Your task to perform on an android device: visit the assistant section in the google photos Image 0: 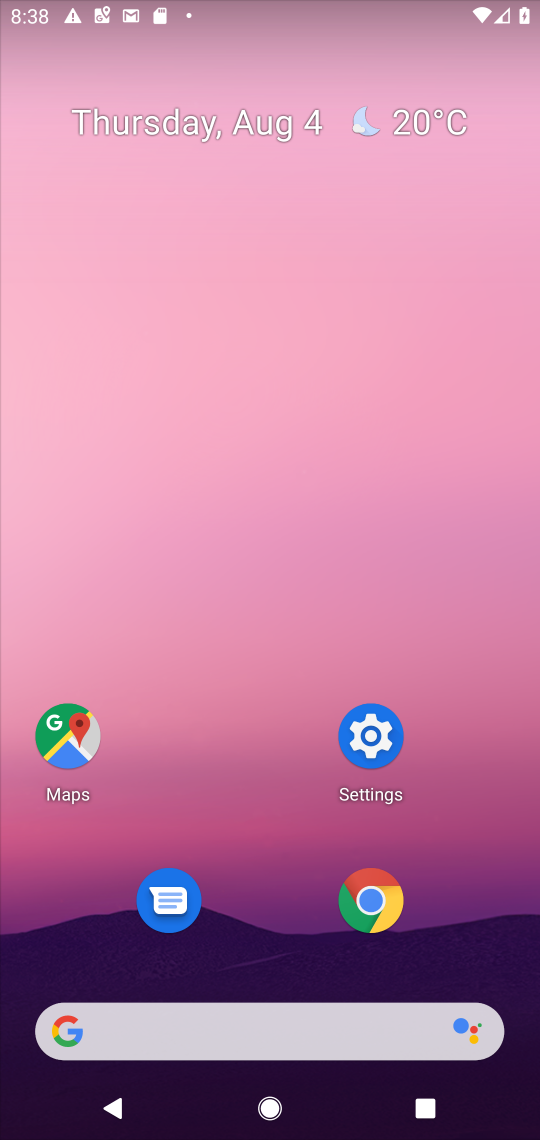
Step 0: press home button
Your task to perform on an android device: visit the assistant section in the google photos Image 1: 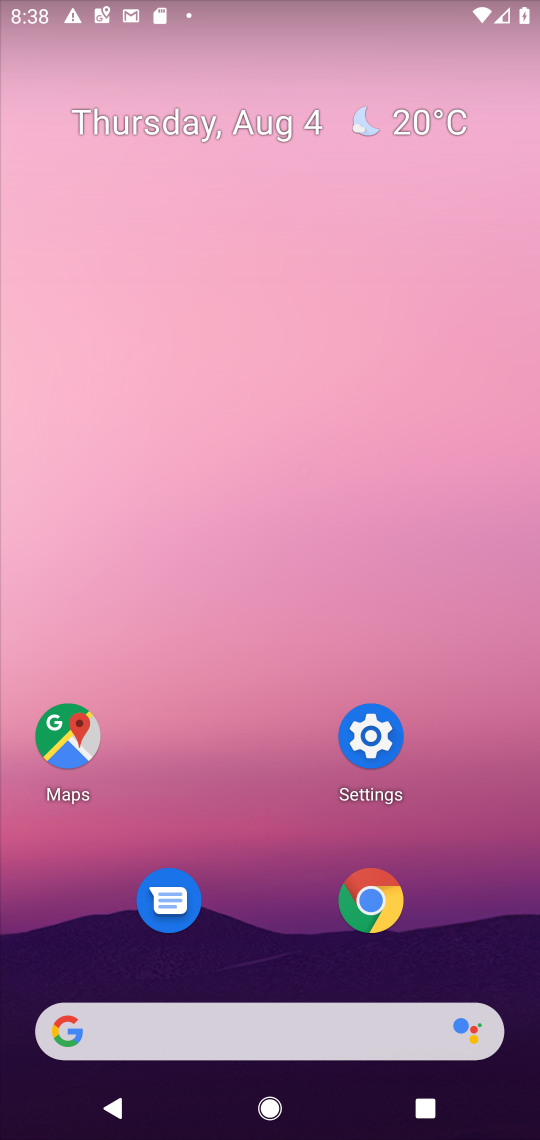
Step 1: drag from (265, 1015) to (399, 306)
Your task to perform on an android device: visit the assistant section in the google photos Image 2: 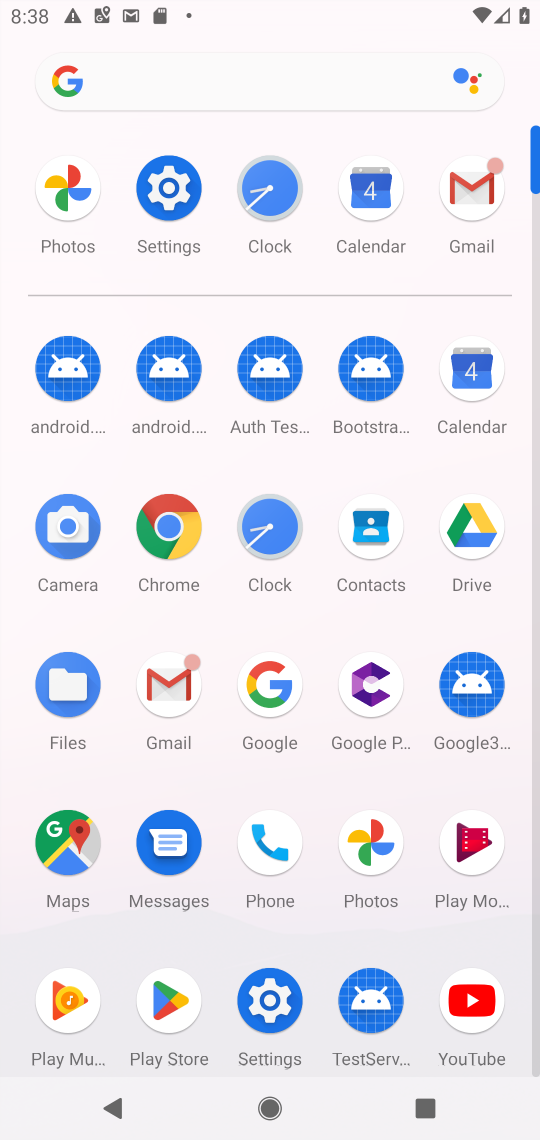
Step 2: click (367, 839)
Your task to perform on an android device: visit the assistant section in the google photos Image 3: 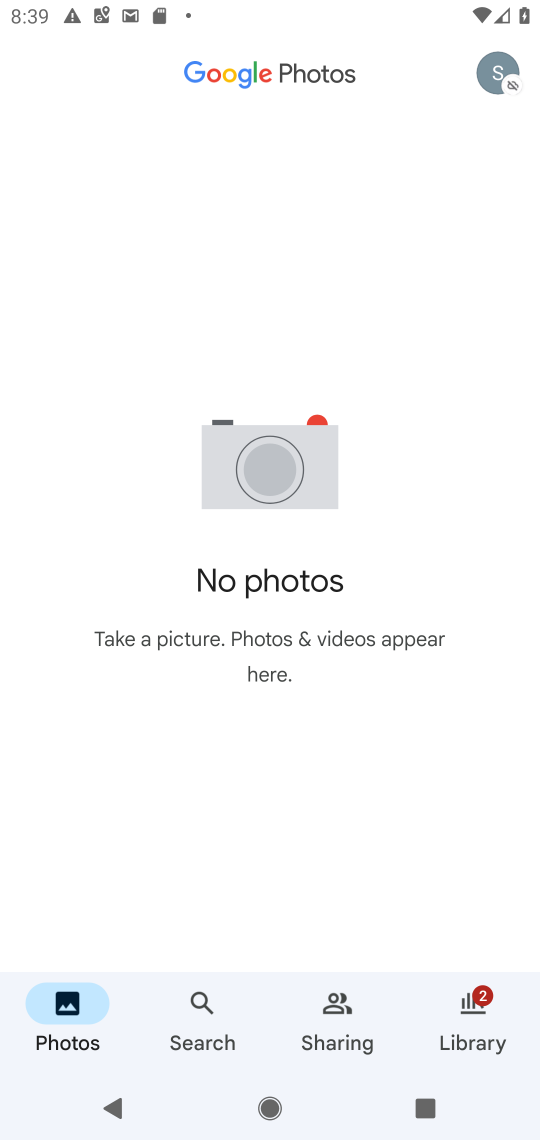
Step 3: click (214, 1034)
Your task to perform on an android device: visit the assistant section in the google photos Image 4: 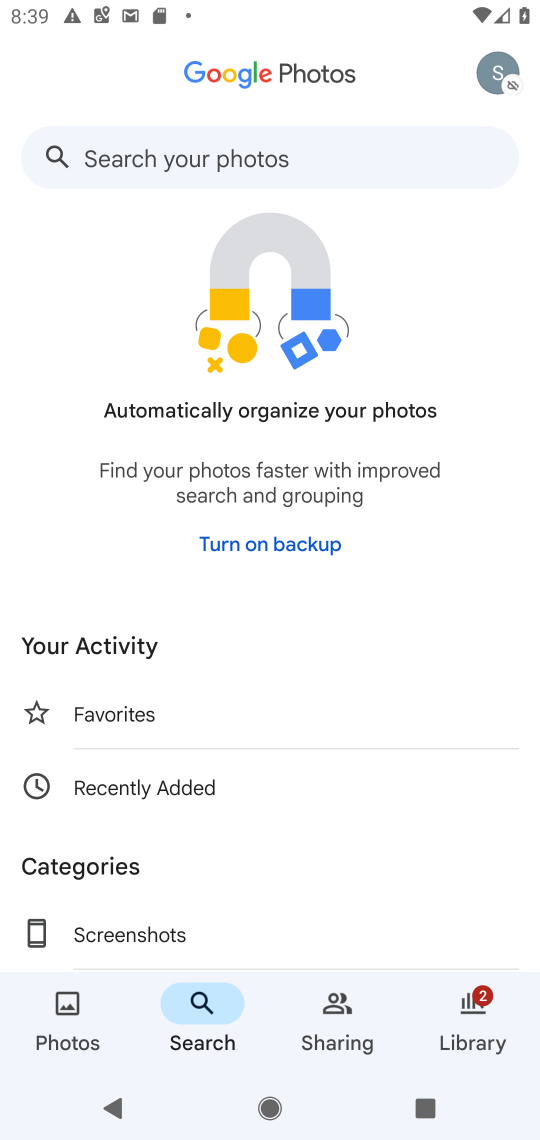
Step 4: task complete